Your task to perform on an android device: remove spam from my inbox in the gmail app Image 0: 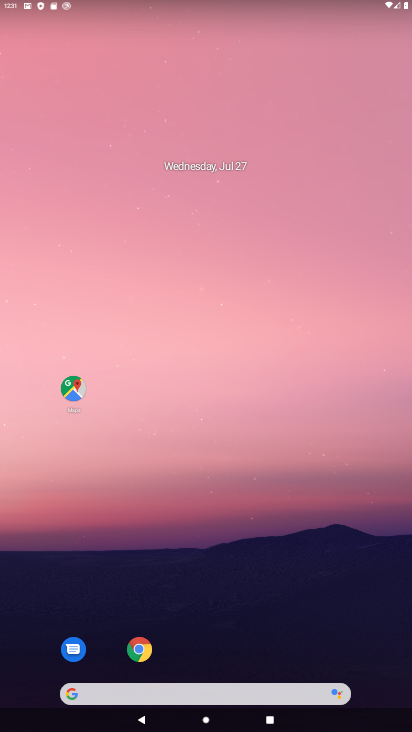
Step 0: drag from (208, 624) to (240, 59)
Your task to perform on an android device: remove spam from my inbox in the gmail app Image 1: 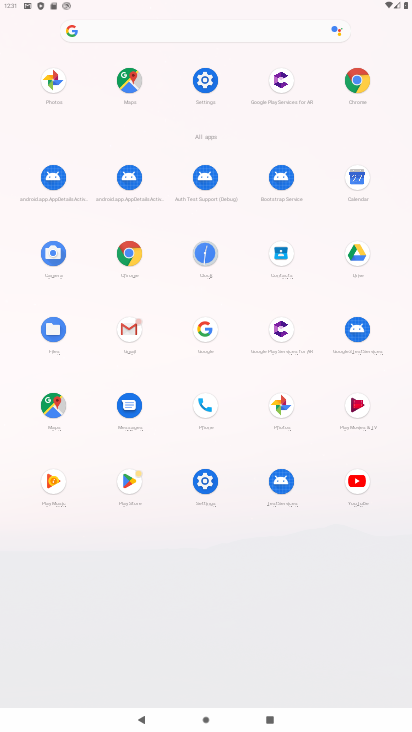
Step 1: click (132, 332)
Your task to perform on an android device: remove spam from my inbox in the gmail app Image 2: 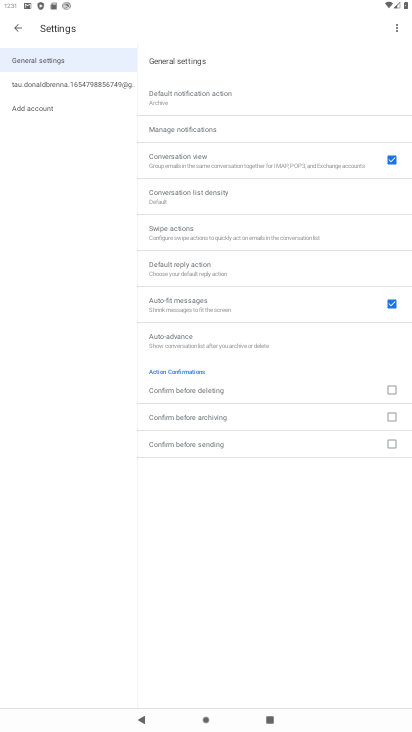
Step 2: click (22, 32)
Your task to perform on an android device: remove spam from my inbox in the gmail app Image 3: 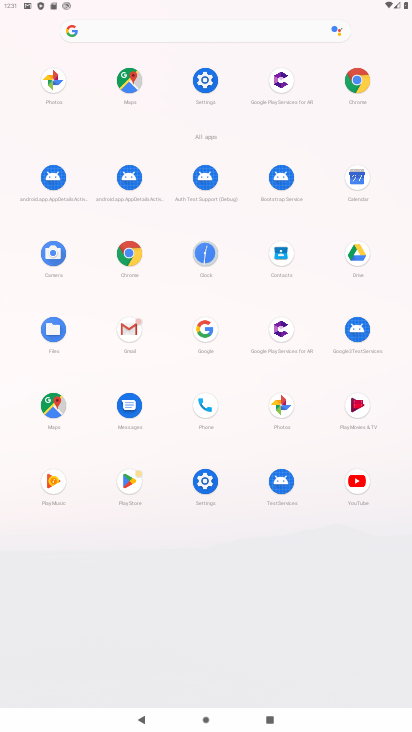
Step 3: click (139, 326)
Your task to perform on an android device: remove spam from my inbox in the gmail app Image 4: 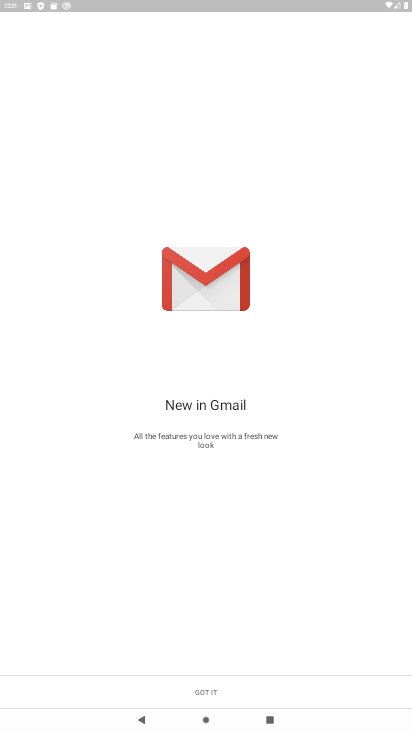
Step 4: click (200, 675)
Your task to perform on an android device: remove spam from my inbox in the gmail app Image 5: 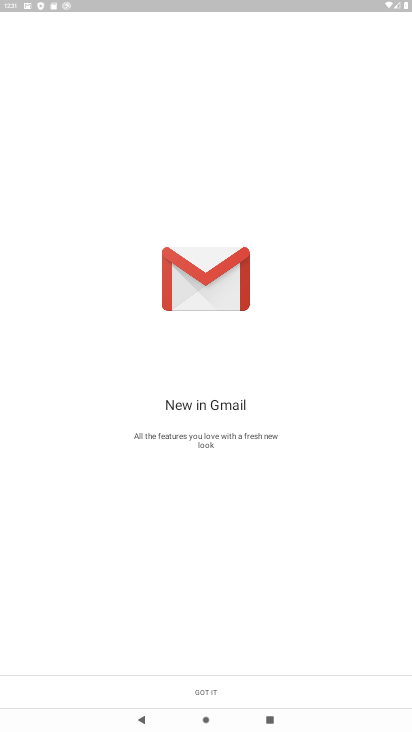
Step 5: click (208, 685)
Your task to perform on an android device: remove spam from my inbox in the gmail app Image 6: 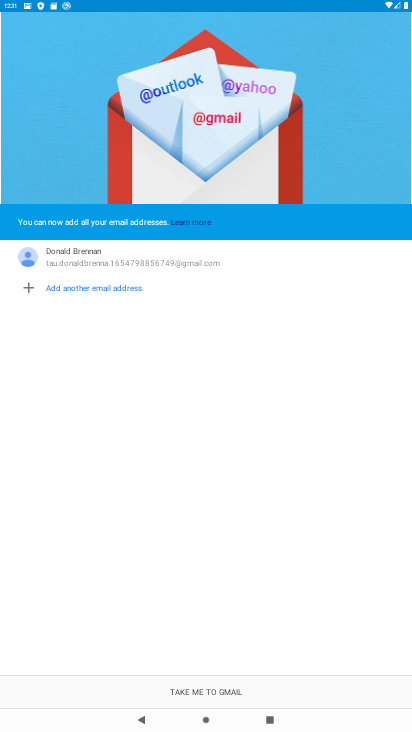
Step 6: click (244, 690)
Your task to perform on an android device: remove spam from my inbox in the gmail app Image 7: 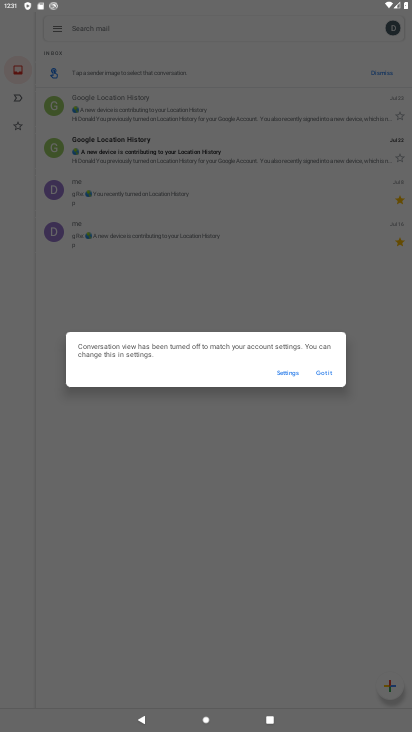
Step 7: click (326, 374)
Your task to perform on an android device: remove spam from my inbox in the gmail app Image 8: 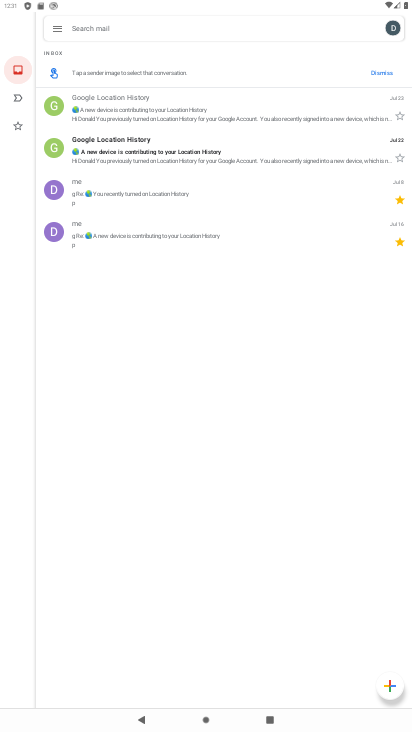
Step 8: click (54, 32)
Your task to perform on an android device: remove spam from my inbox in the gmail app Image 9: 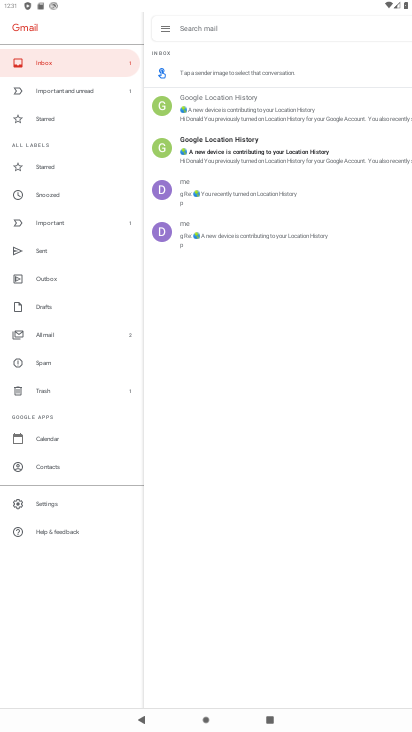
Step 9: click (65, 367)
Your task to perform on an android device: remove spam from my inbox in the gmail app Image 10: 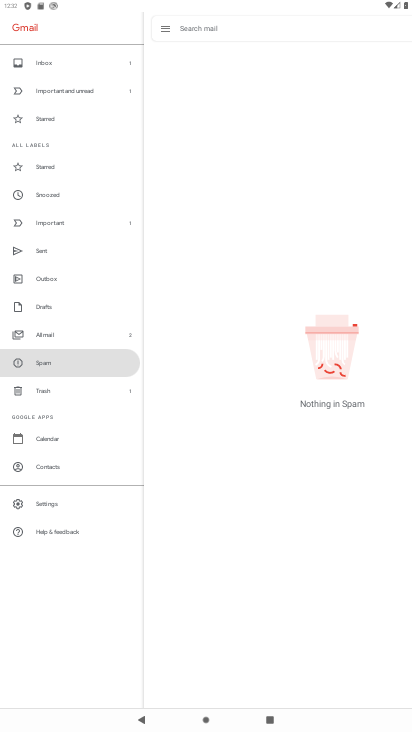
Step 10: task complete